Your task to perform on an android device: toggle wifi Image 0: 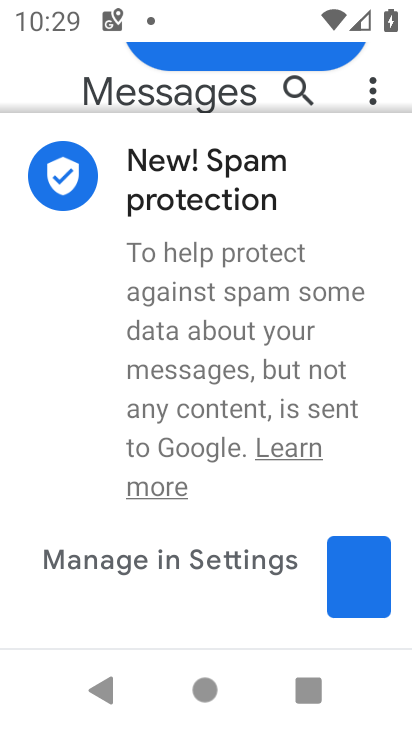
Step 0: press home button
Your task to perform on an android device: toggle wifi Image 1: 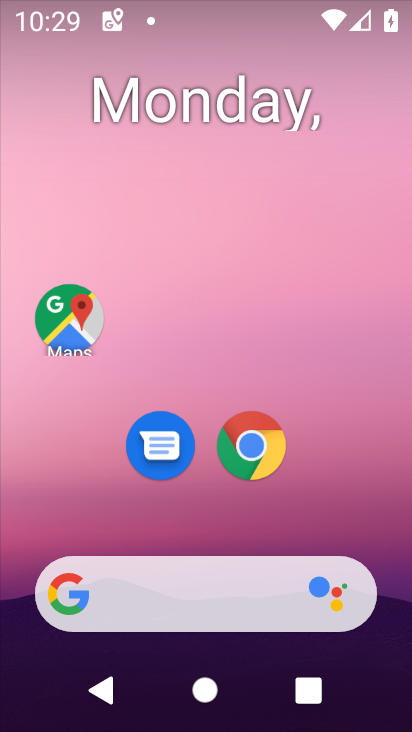
Step 1: drag from (245, 709) to (276, 19)
Your task to perform on an android device: toggle wifi Image 2: 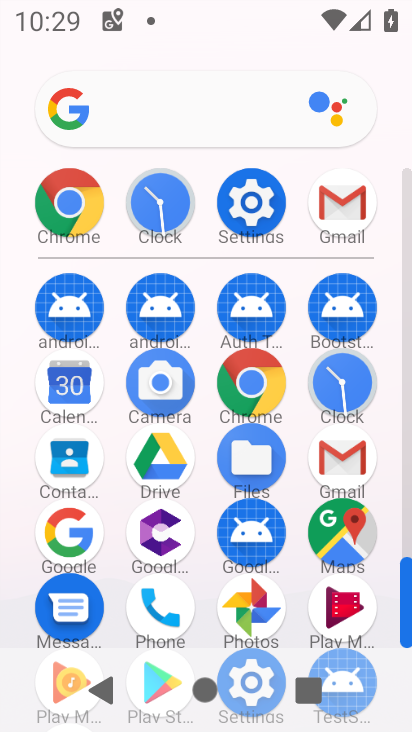
Step 2: click (234, 208)
Your task to perform on an android device: toggle wifi Image 3: 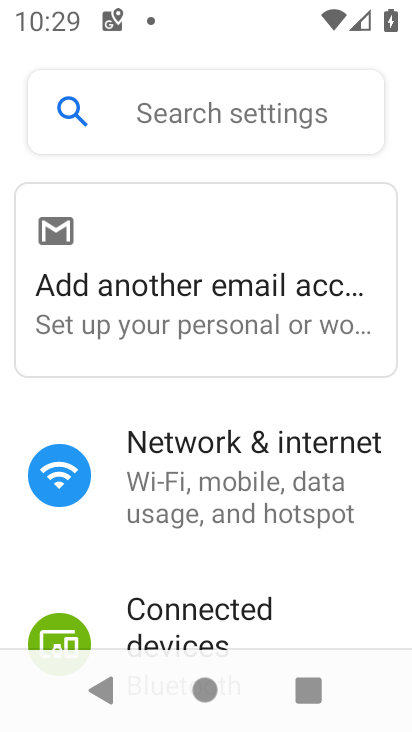
Step 3: click (214, 463)
Your task to perform on an android device: toggle wifi Image 4: 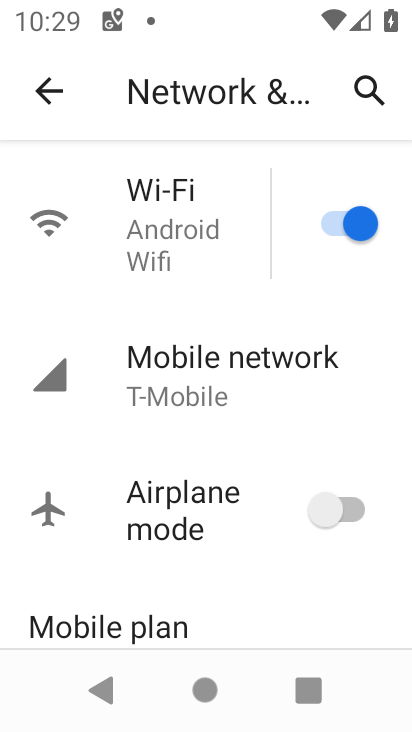
Step 4: click (360, 224)
Your task to perform on an android device: toggle wifi Image 5: 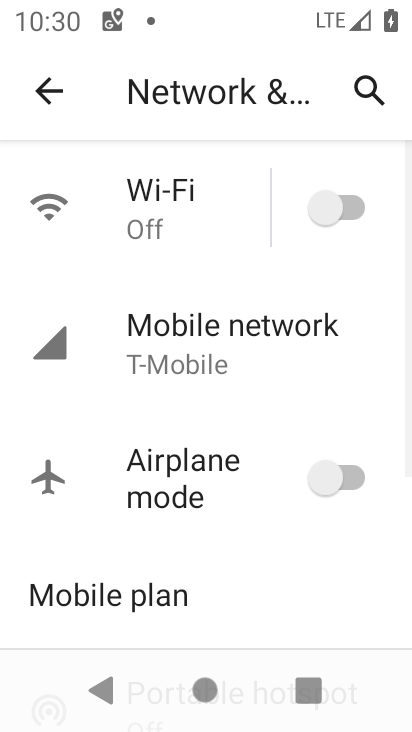
Step 5: task complete